Your task to perform on an android device: toggle sleep mode Image 0: 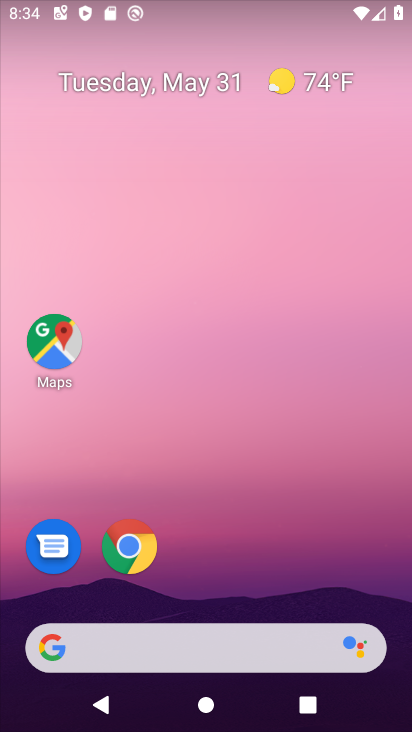
Step 0: drag from (224, 577) to (283, 57)
Your task to perform on an android device: toggle sleep mode Image 1: 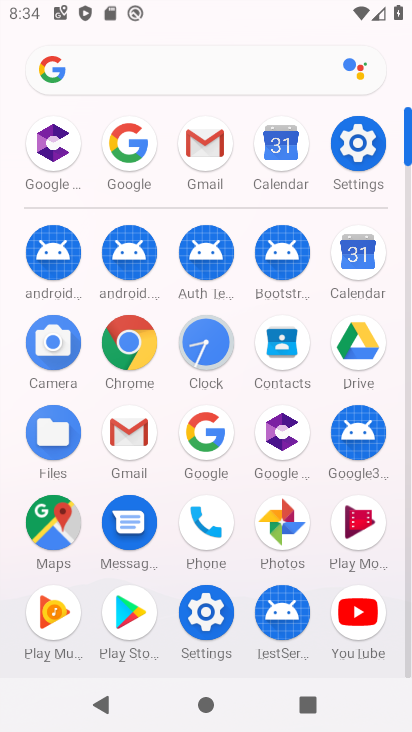
Step 1: click (362, 142)
Your task to perform on an android device: toggle sleep mode Image 2: 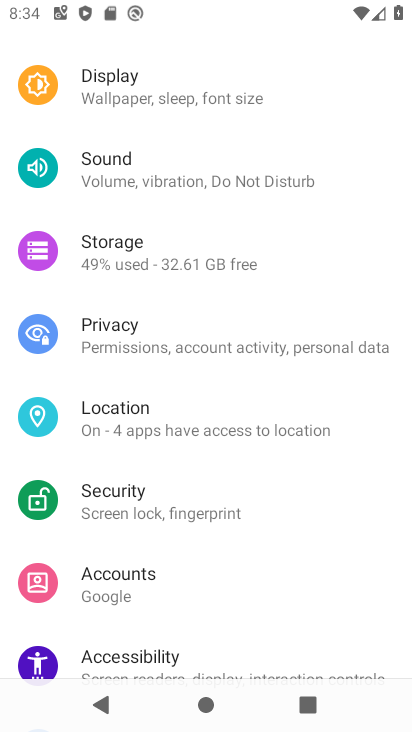
Step 2: click (193, 81)
Your task to perform on an android device: toggle sleep mode Image 3: 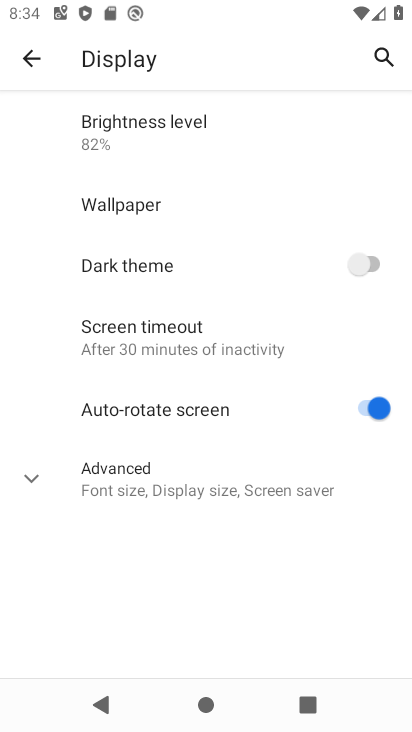
Step 3: click (147, 337)
Your task to perform on an android device: toggle sleep mode Image 4: 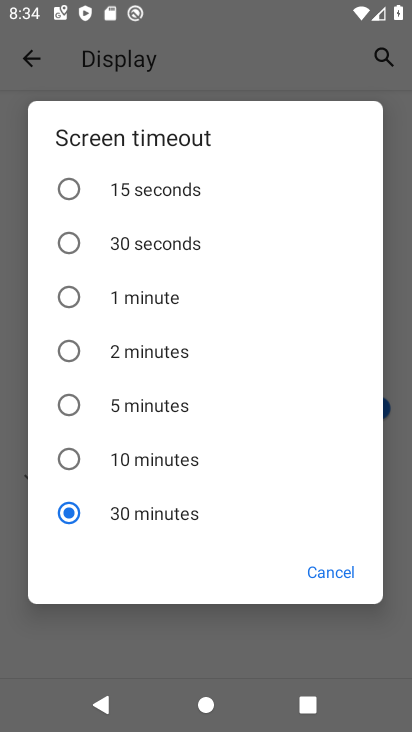
Step 4: click (67, 406)
Your task to perform on an android device: toggle sleep mode Image 5: 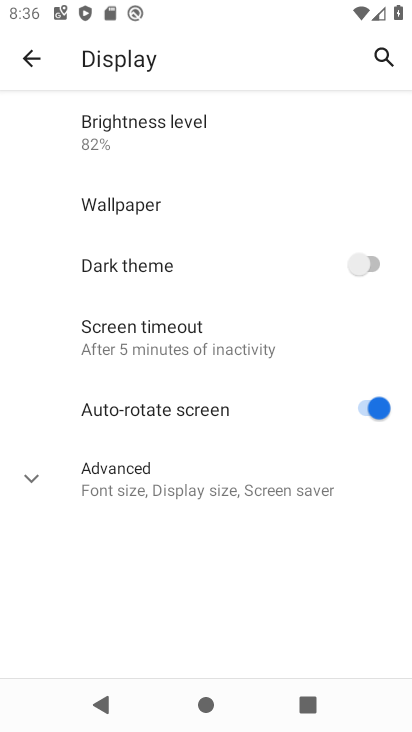
Step 5: task complete